Your task to perform on an android device: Open settings on Google Maps Image 0: 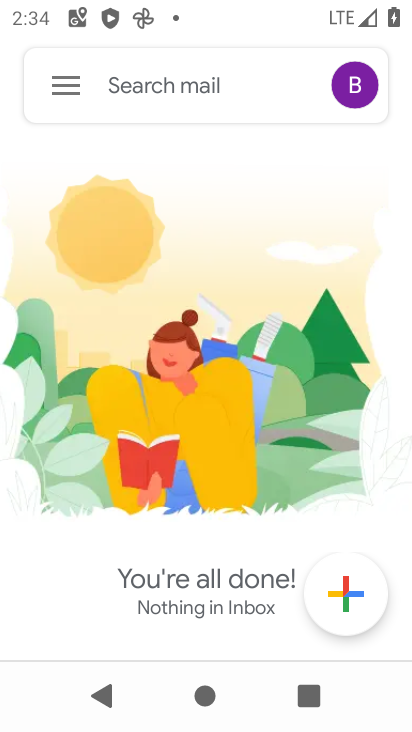
Step 0: press home button
Your task to perform on an android device: Open settings on Google Maps Image 1: 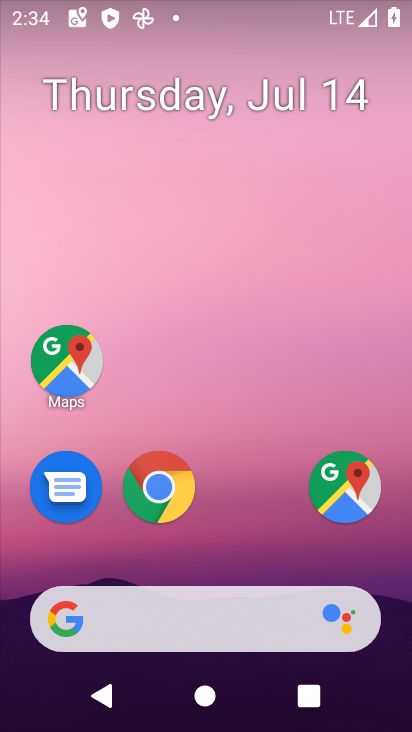
Step 1: drag from (232, 523) to (268, 153)
Your task to perform on an android device: Open settings on Google Maps Image 2: 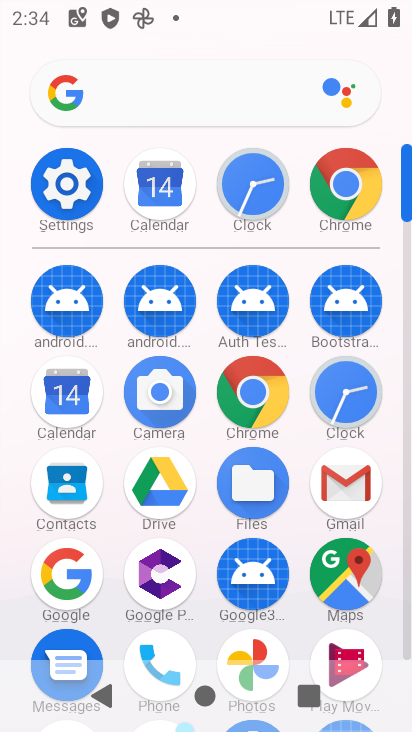
Step 2: click (347, 577)
Your task to perform on an android device: Open settings on Google Maps Image 3: 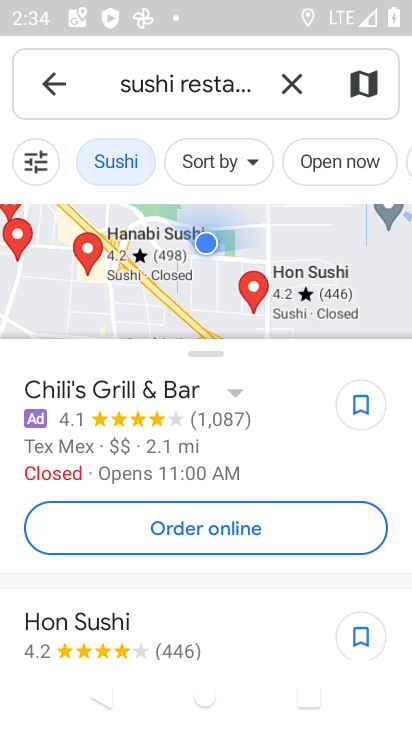
Step 3: press back button
Your task to perform on an android device: Open settings on Google Maps Image 4: 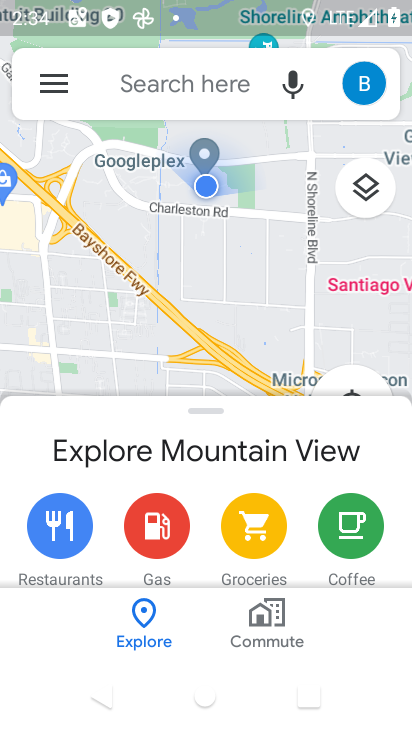
Step 4: click (52, 82)
Your task to perform on an android device: Open settings on Google Maps Image 5: 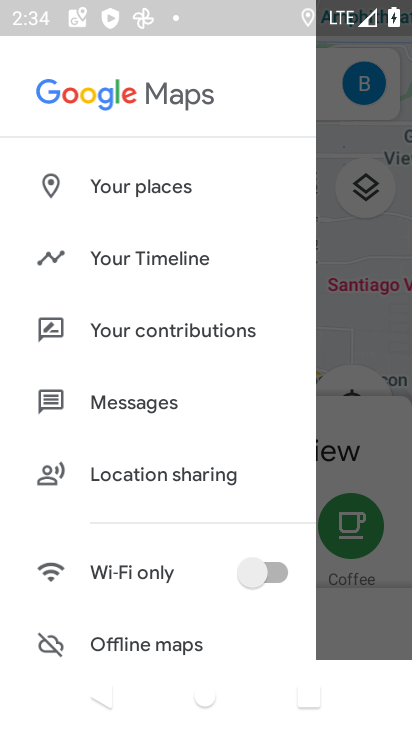
Step 5: drag from (210, 224) to (199, 362)
Your task to perform on an android device: Open settings on Google Maps Image 6: 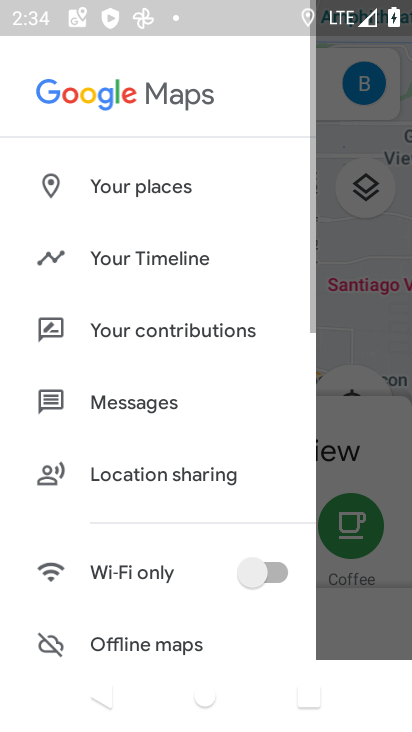
Step 6: drag from (190, 545) to (197, 431)
Your task to perform on an android device: Open settings on Google Maps Image 7: 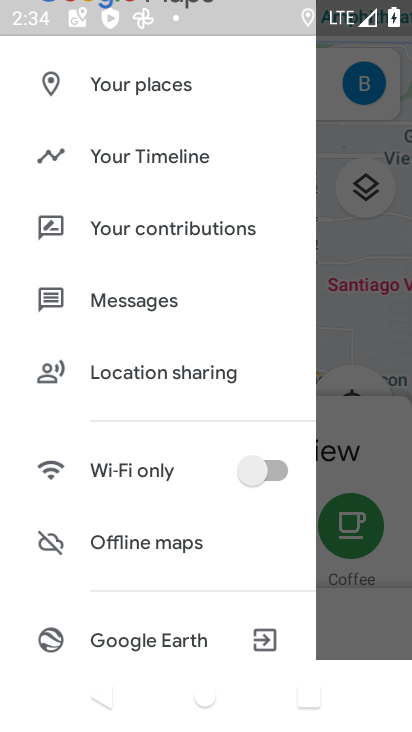
Step 7: drag from (204, 610) to (213, 395)
Your task to perform on an android device: Open settings on Google Maps Image 8: 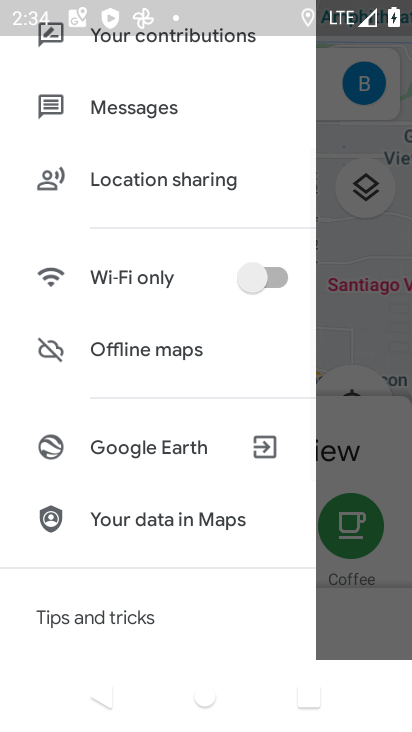
Step 8: drag from (187, 590) to (182, 336)
Your task to perform on an android device: Open settings on Google Maps Image 9: 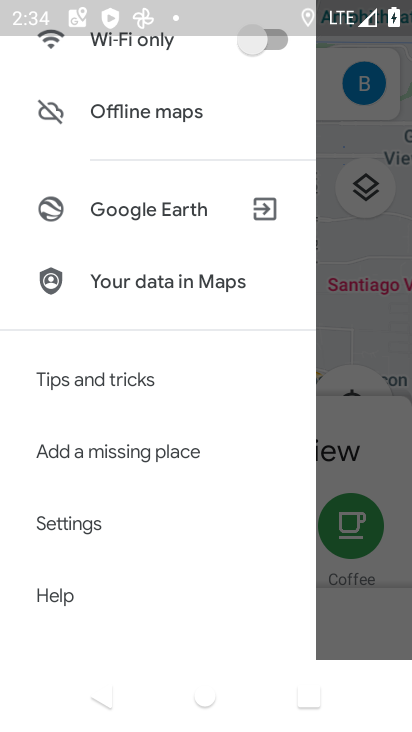
Step 9: click (106, 527)
Your task to perform on an android device: Open settings on Google Maps Image 10: 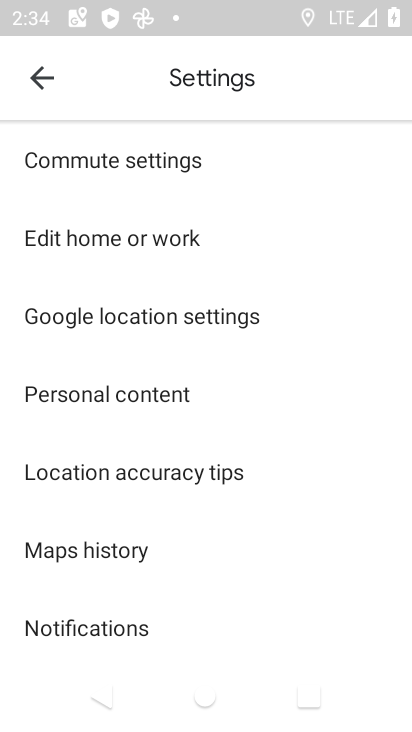
Step 10: task complete